Your task to perform on an android device: turn on improve location accuracy Image 0: 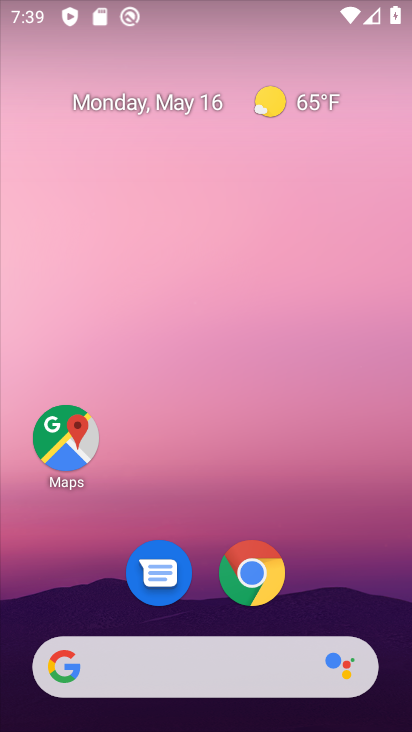
Step 0: drag from (320, 591) to (292, 61)
Your task to perform on an android device: turn on improve location accuracy Image 1: 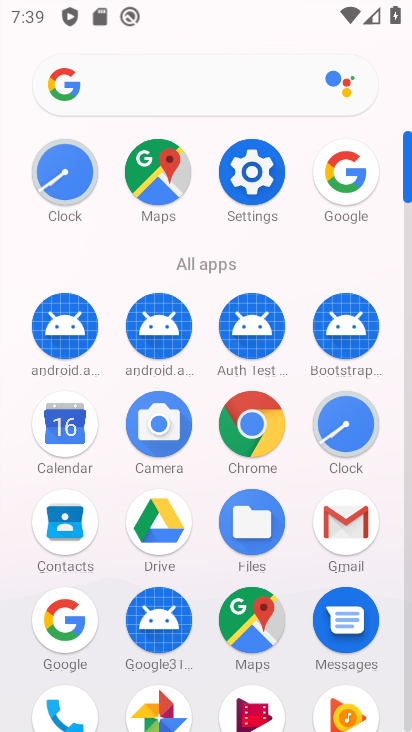
Step 1: click (254, 173)
Your task to perform on an android device: turn on improve location accuracy Image 2: 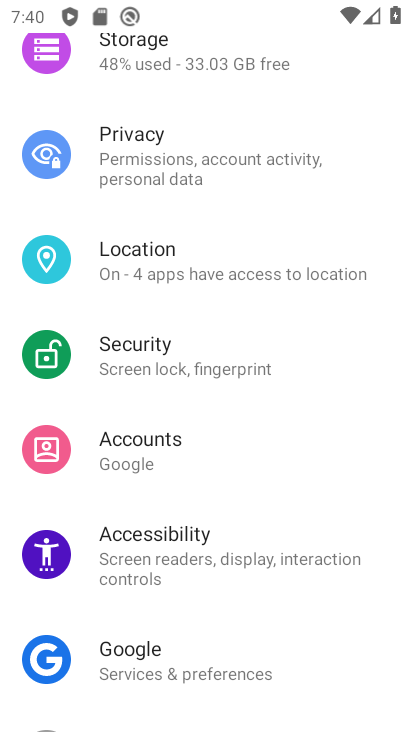
Step 2: click (186, 258)
Your task to perform on an android device: turn on improve location accuracy Image 3: 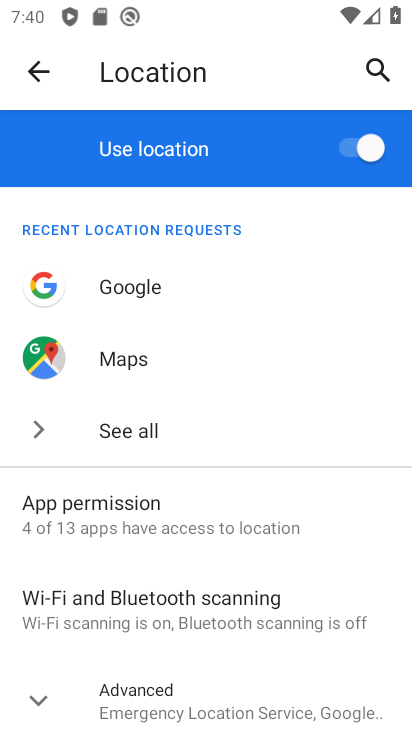
Step 3: click (163, 718)
Your task to perform on an android device: turn on improve location accuracy Image 4: 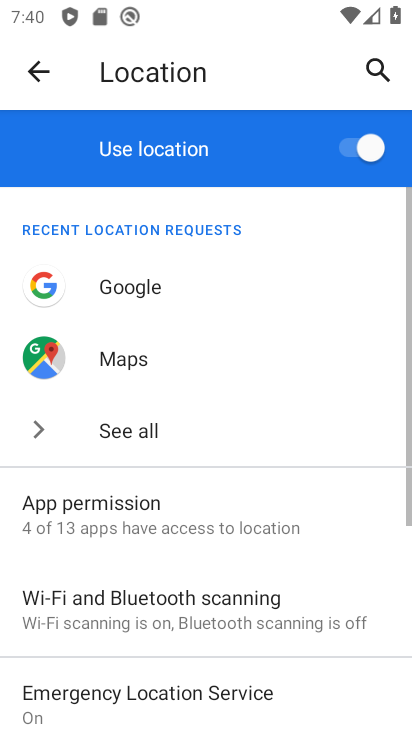
Step 4: drag from (163, 718) to (161, 472)
Your task to perform on an android device: turn on improve location accuracy Image 5: 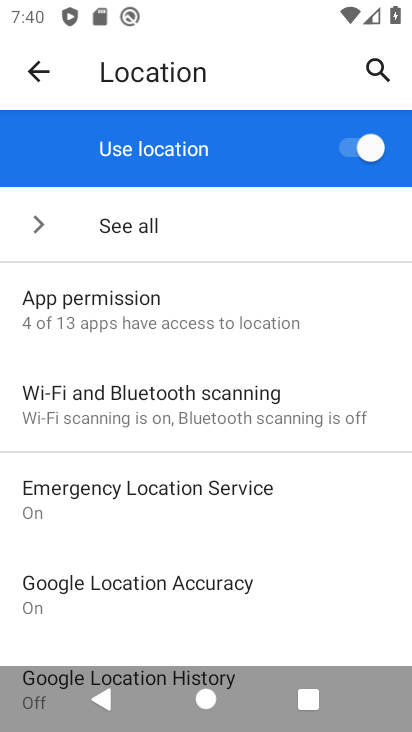
Step 5: click (155, 578)
Your task to perform on an android device: turn on improve location accuracy Image 6: 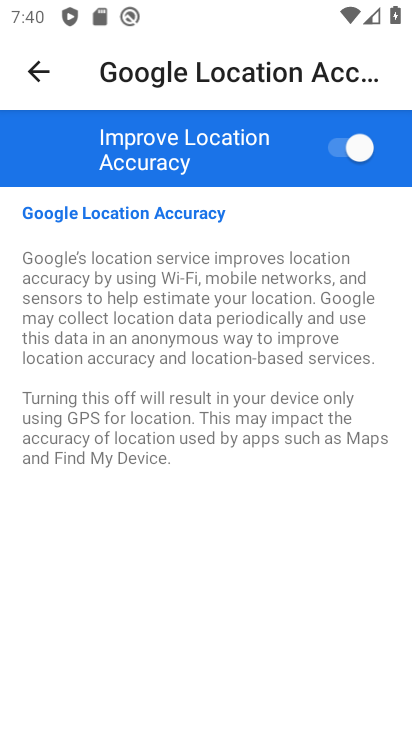
Step 6: task complete